Your task to perform on an android device: What time is it in Beijing? Image 0: 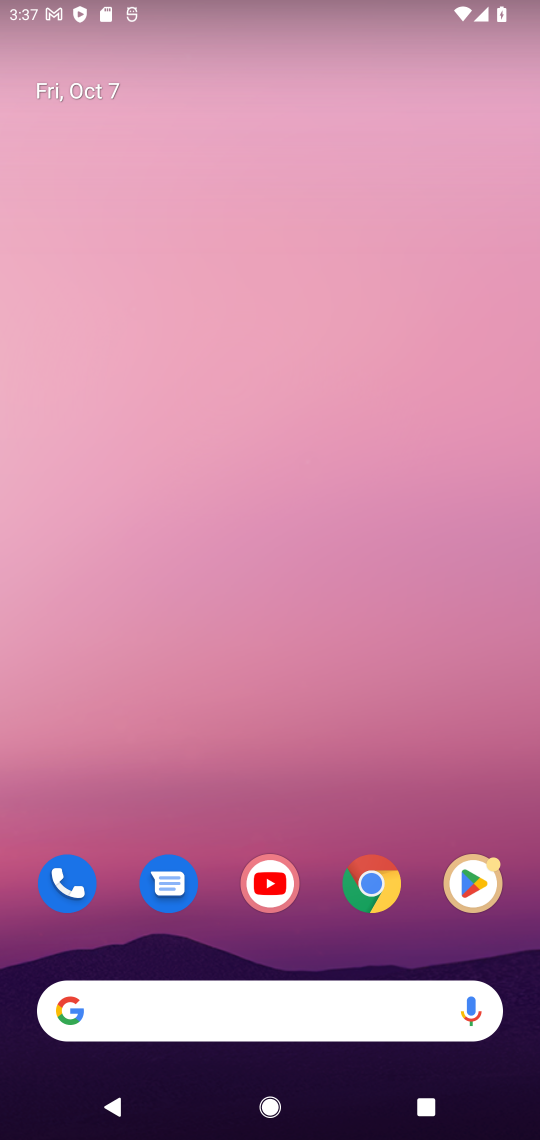
Step 0: click (361, 911)
Your task to perform on an android device: What time is it in Beijing? Image 1: 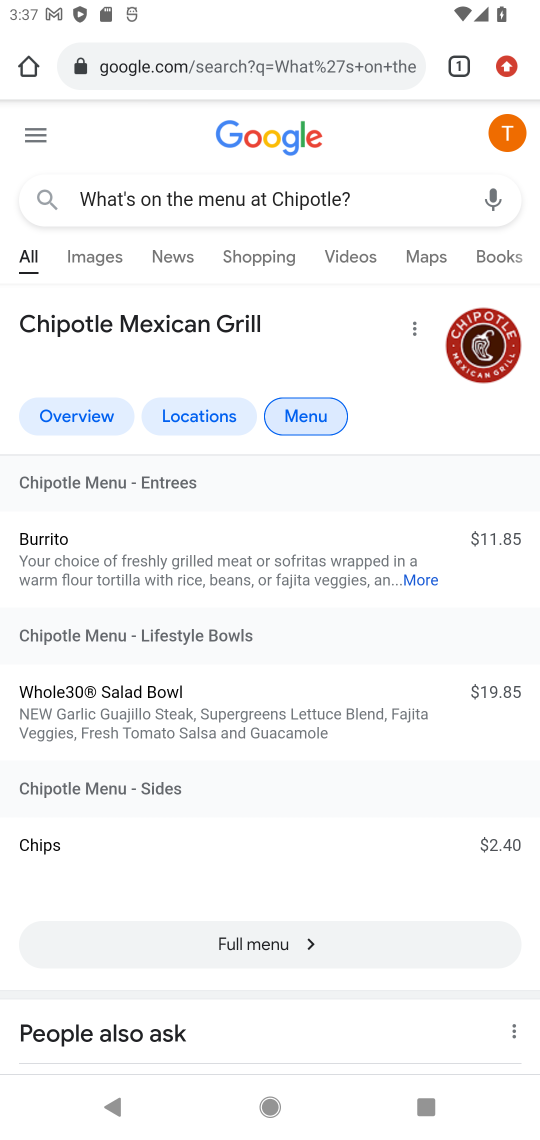
Step 1: click (358, 207)
Your task to perform on an android device: What time is it in Beijing? Image 2: 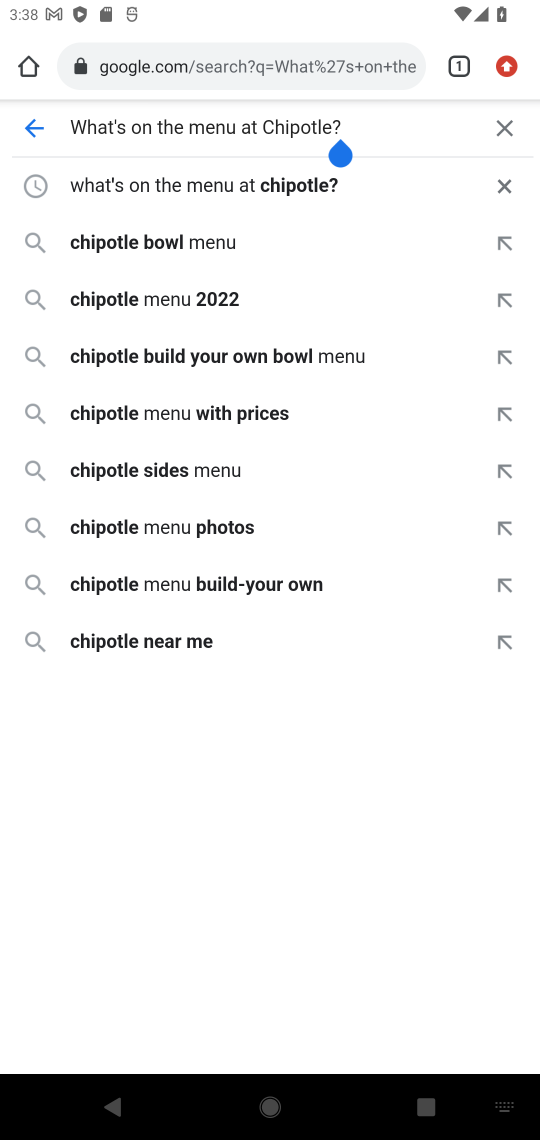
Step 2: click (501, 137)
Your task to perform on an android device: What time is it in Beijing? Image 3: 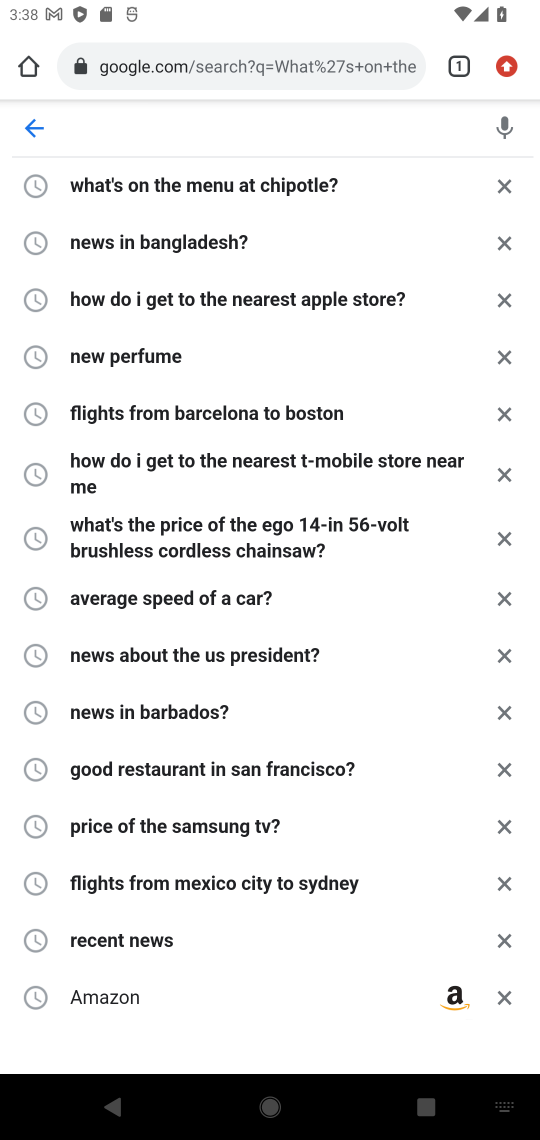
Step 3: drag from (77, 1138) to (445, 1110)
Your task to perform on an android device: What time is it in Beijing? Image 4: 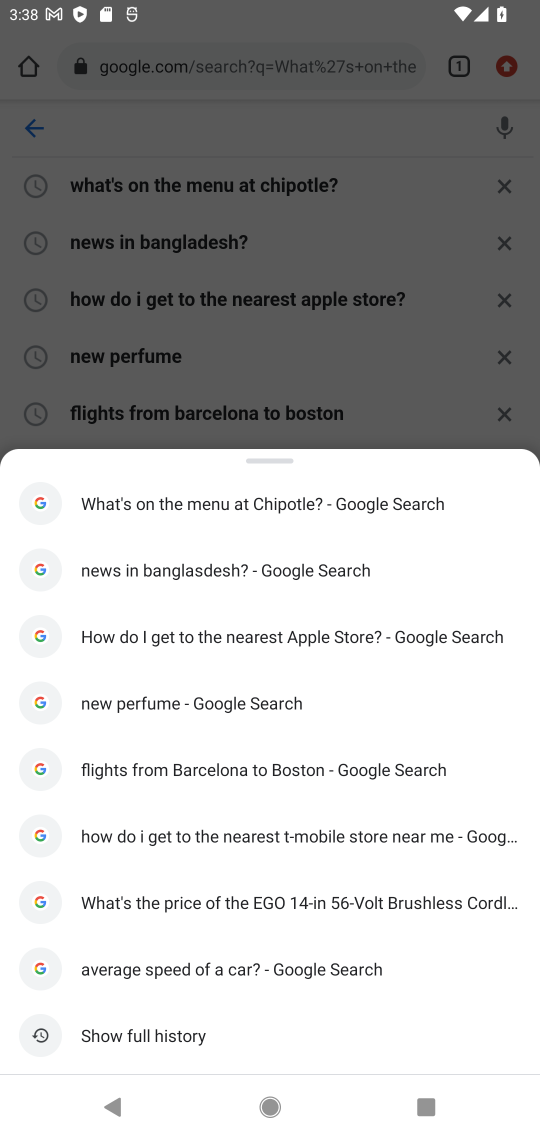
Step 4: click (398, 135)
Your task to perform on an android device: What time is it in Beijing? Image 5: 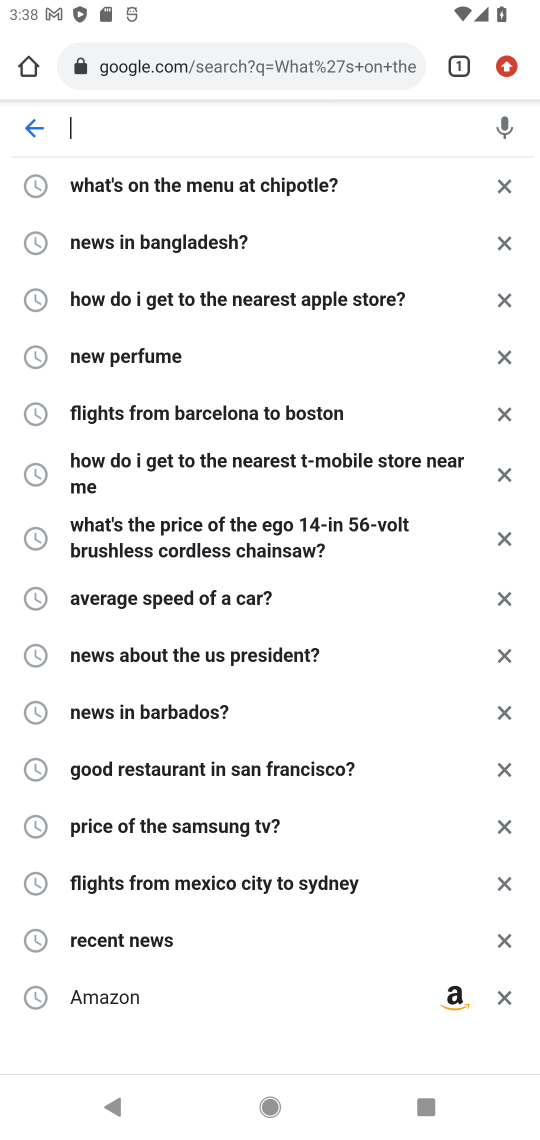
Step 5: click (290, 131)
Your task to perform on an android device: What time is it in Beijing? Image 6: 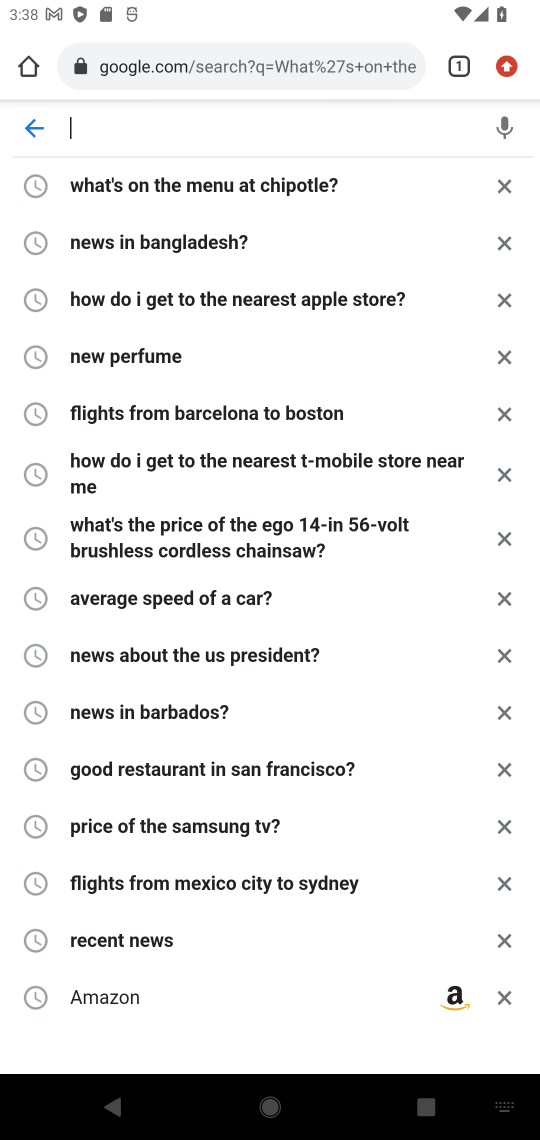
Step 6: type "What time is it in Beijing?"
Your task to perform on an android device: What time is it in Beijing? Image 7: 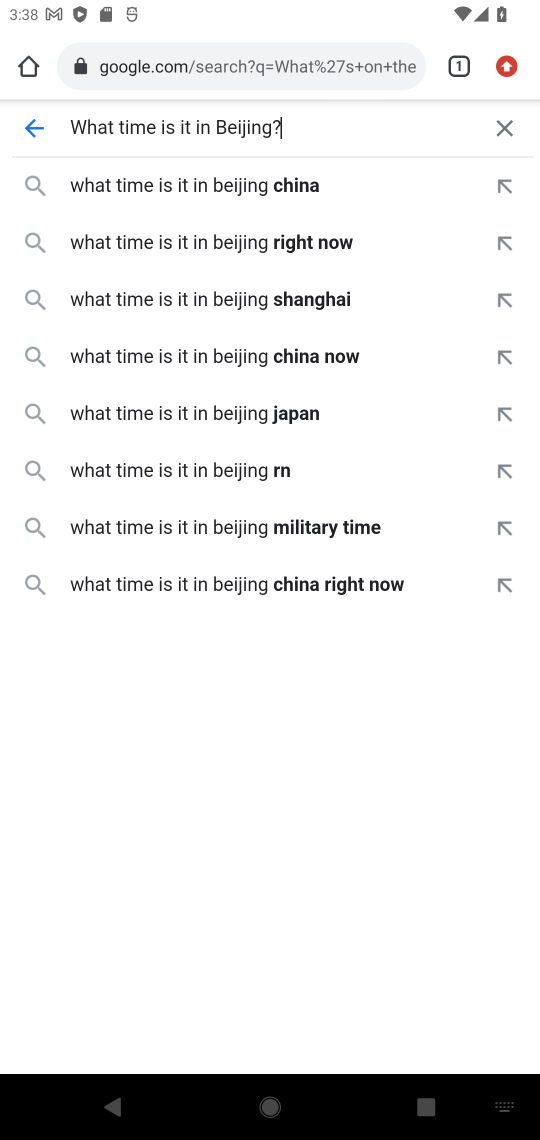
Step 7: press enter
Your task to perform on an android device: What time is it in Beijing? Image 8: 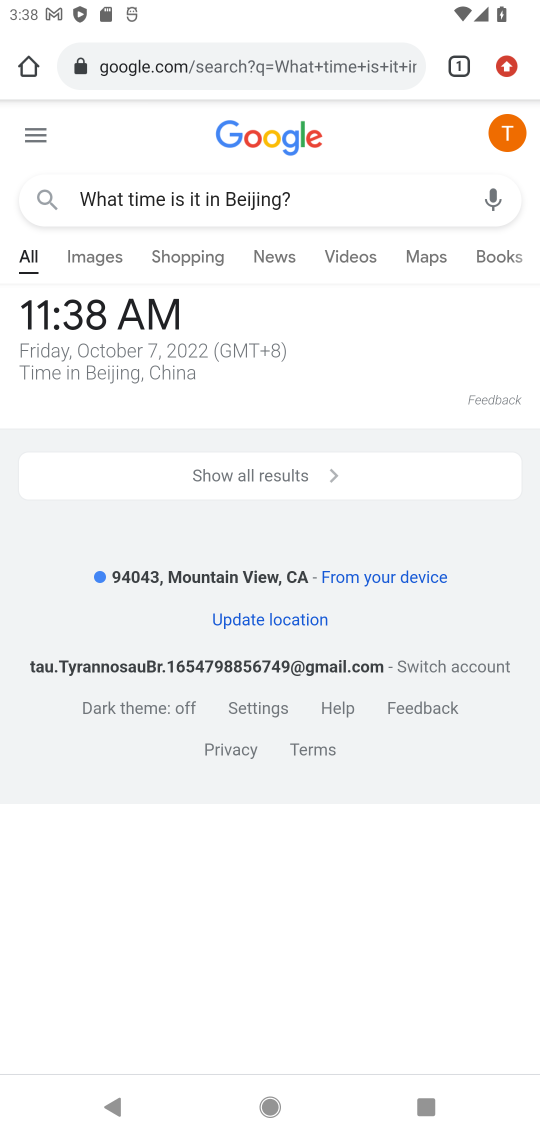
Step 8: task complete